Your task to perform on an android device: open chrome and create a bookmark for the current page Image 0: 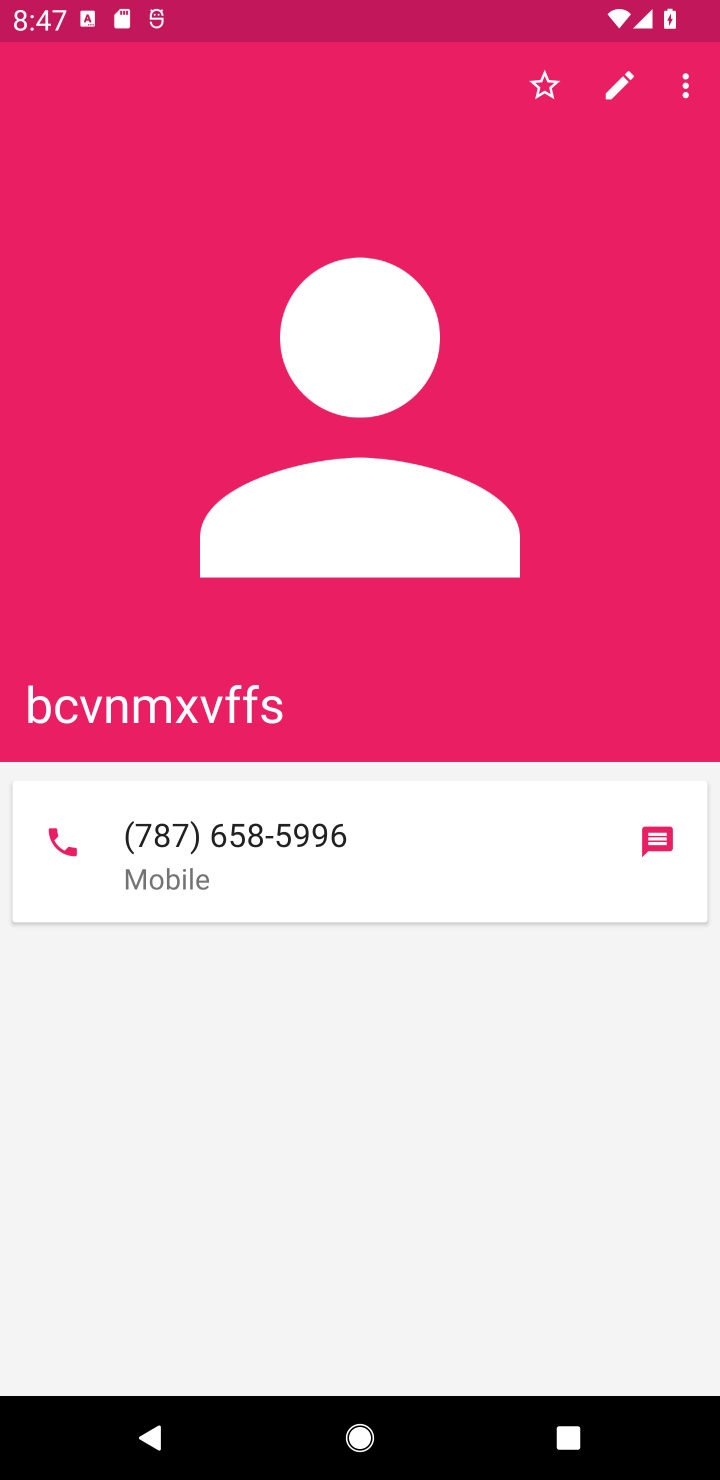
Step 0: press home button
Your task to perform on an android device: open chrome and create a bookmark for the current page Image 1: 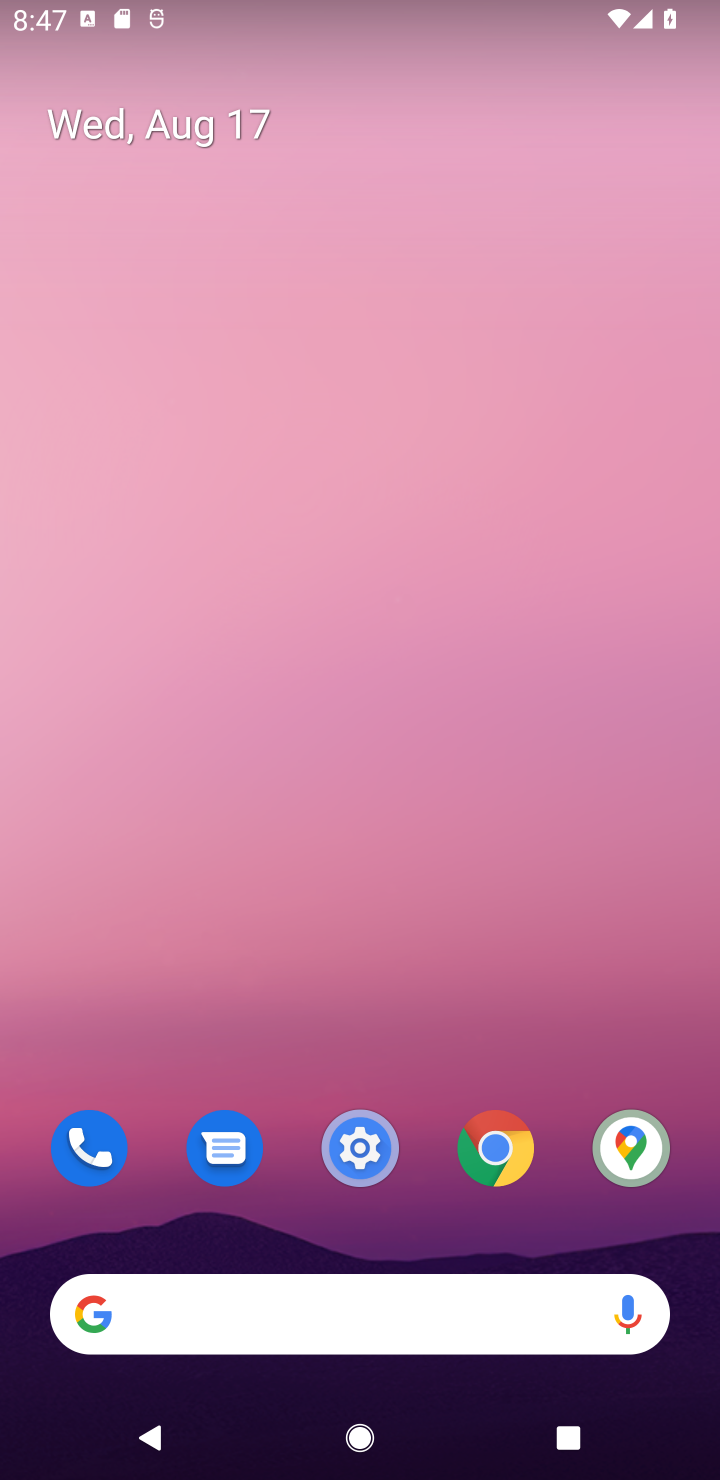
Step 1: click (500, 1151)
Your task to perform on an android device: open chrome and create a bookmark for the current page Image 2: 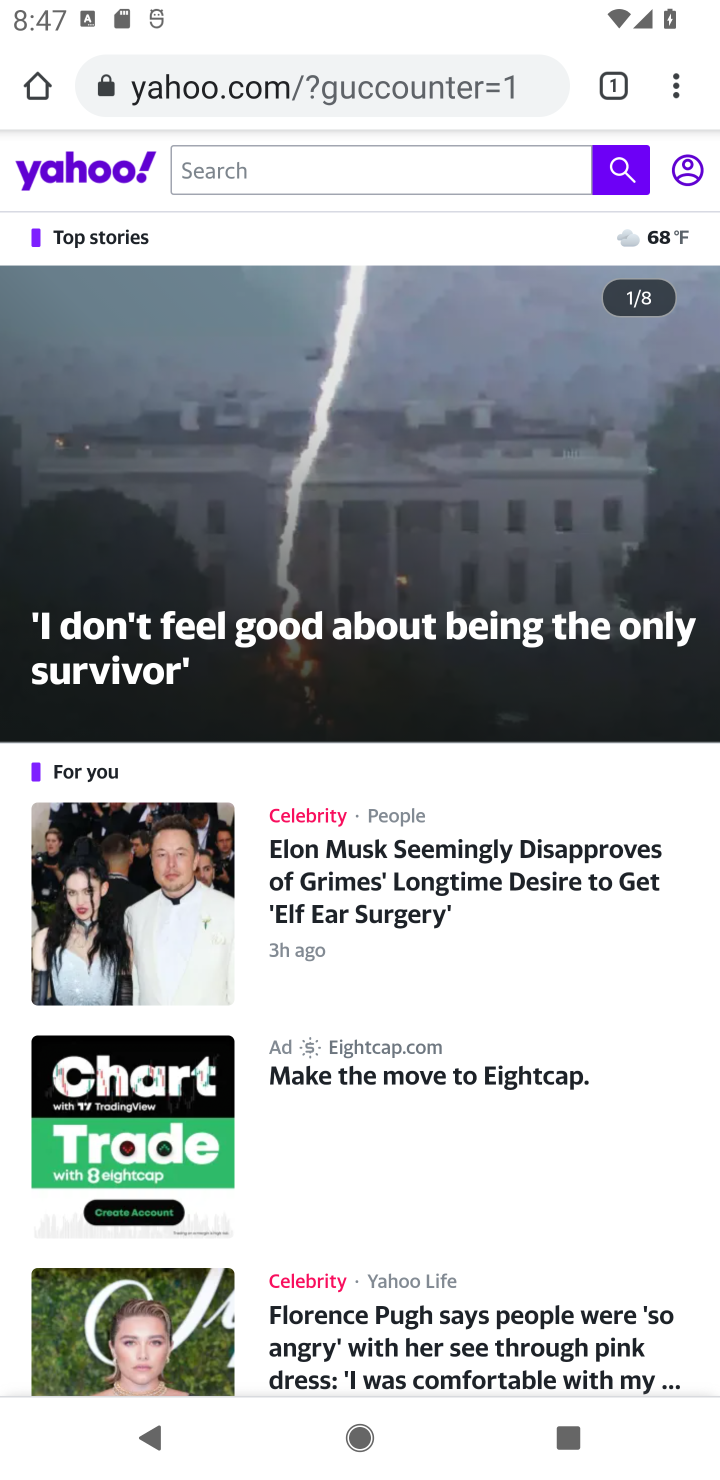
Step 2: click (667, 93)
Your task to perform on an android device: open chrome and create a bookmark for the current page Image 3: 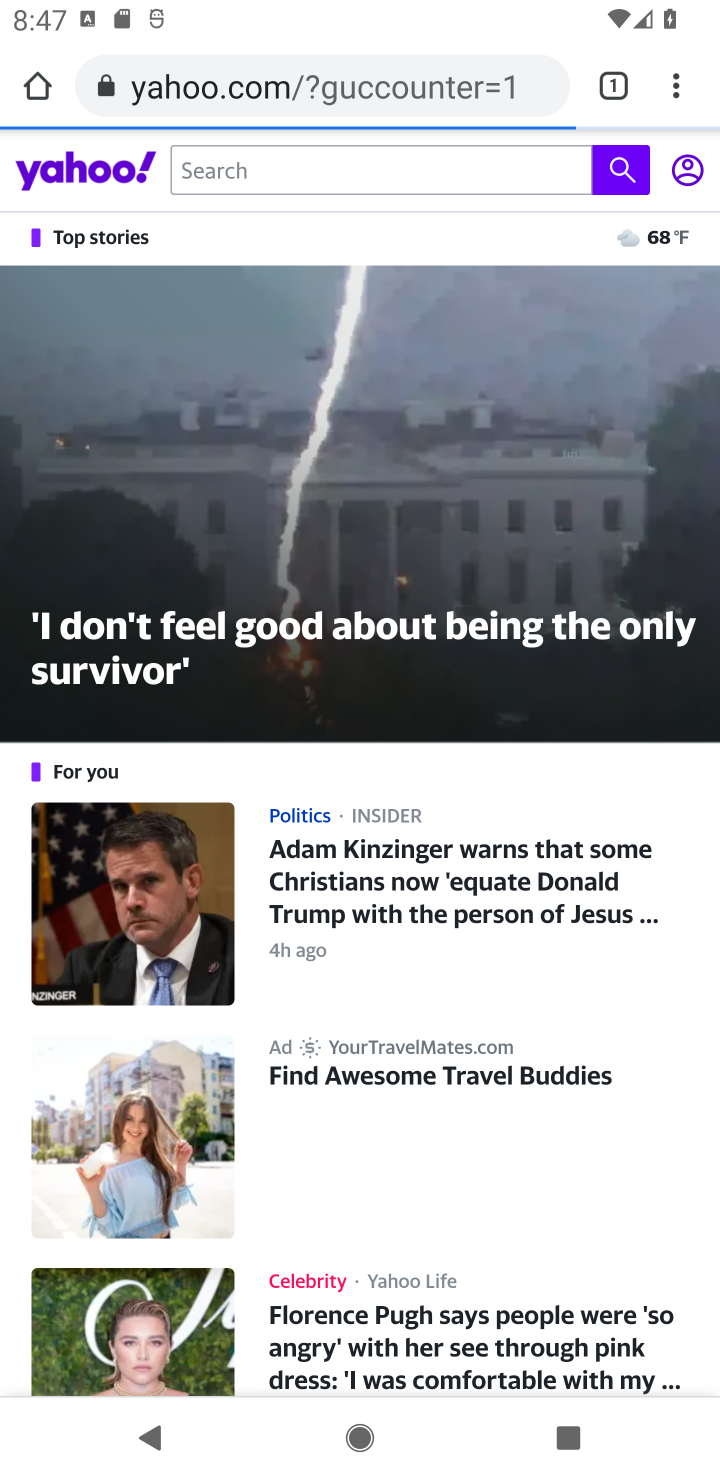
Step 3: click (666, 102)
Your task to perform on an android device: open chrome and create a bookmark for the current page Image 4: 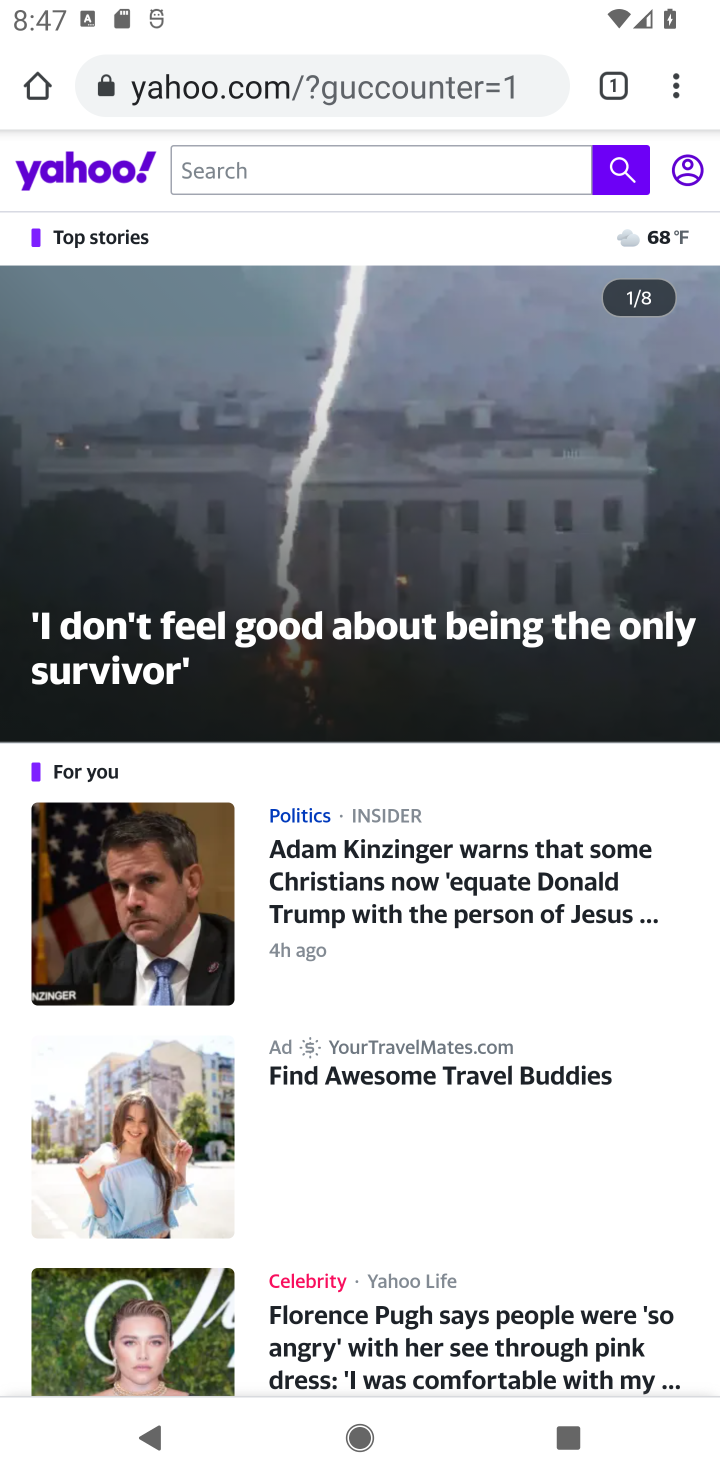
Step 4: click (666, 102)
Your task to perform on an android device: open chrome and create a bookmark for the current page Image 5: 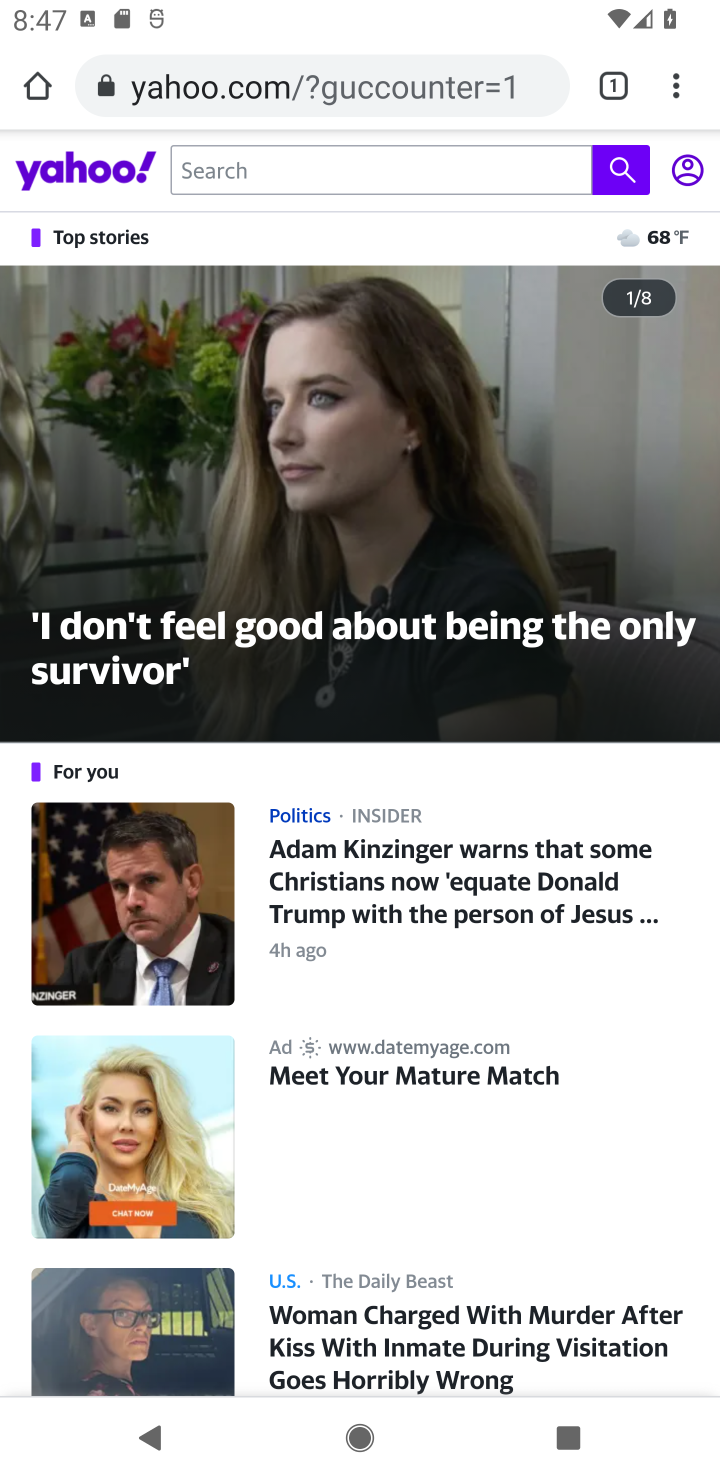
Step 5: click (662, 94)
Your task to perform on an android device: open chrome and create a bookmark for the current page Image 6: 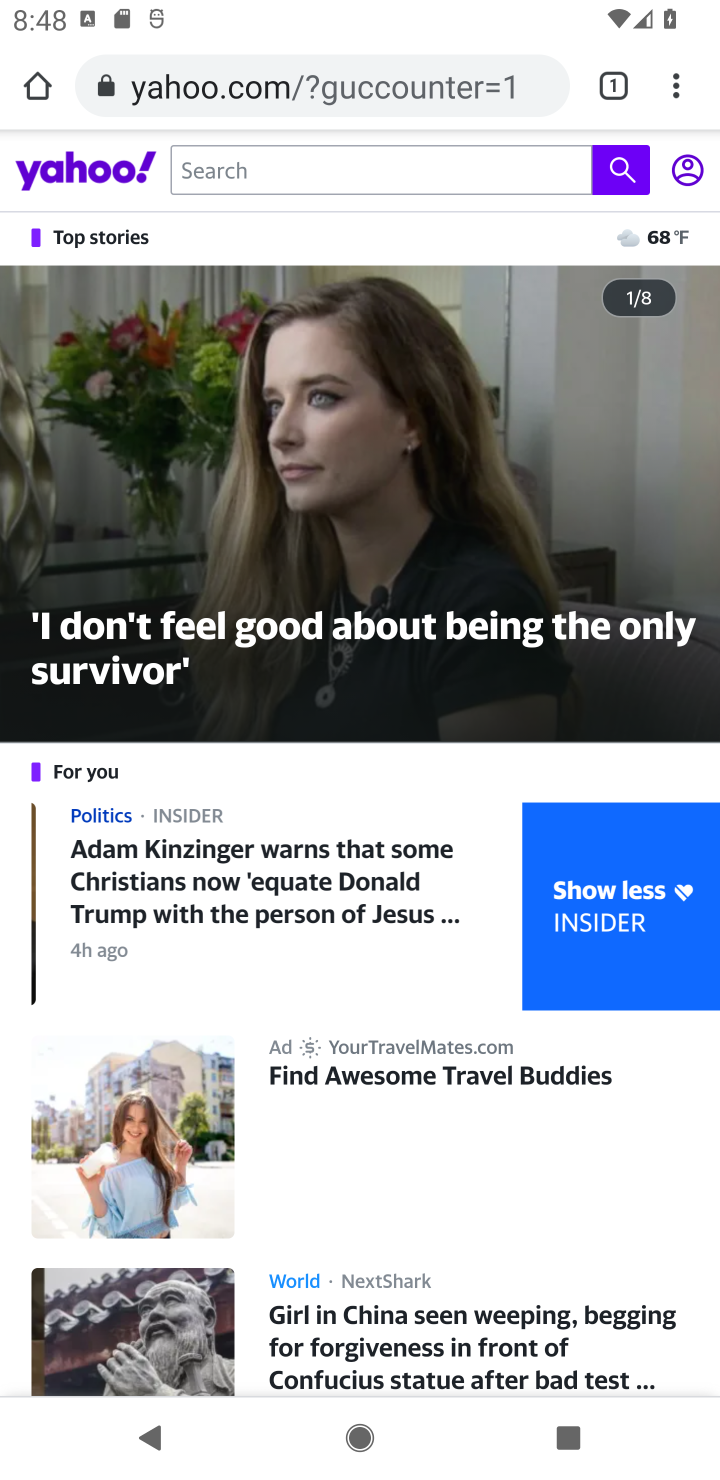
Step 6: click (683, 99)
Your task to perform on an android device: open chrome and create a bookmark for the current page Image 7: 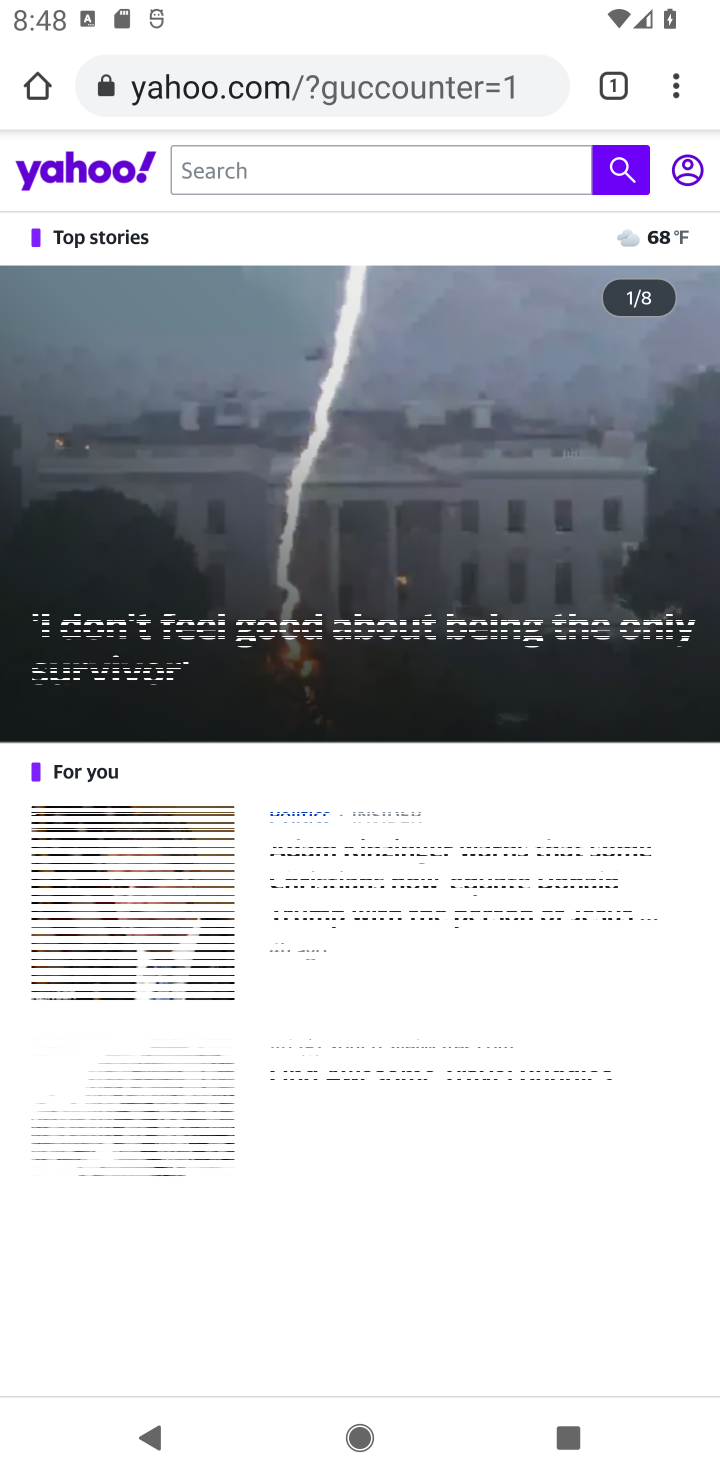
Step 7: click (665, 101)
Your task to perform on an android device: open chrome and create a bookmark for the current page Image 8: 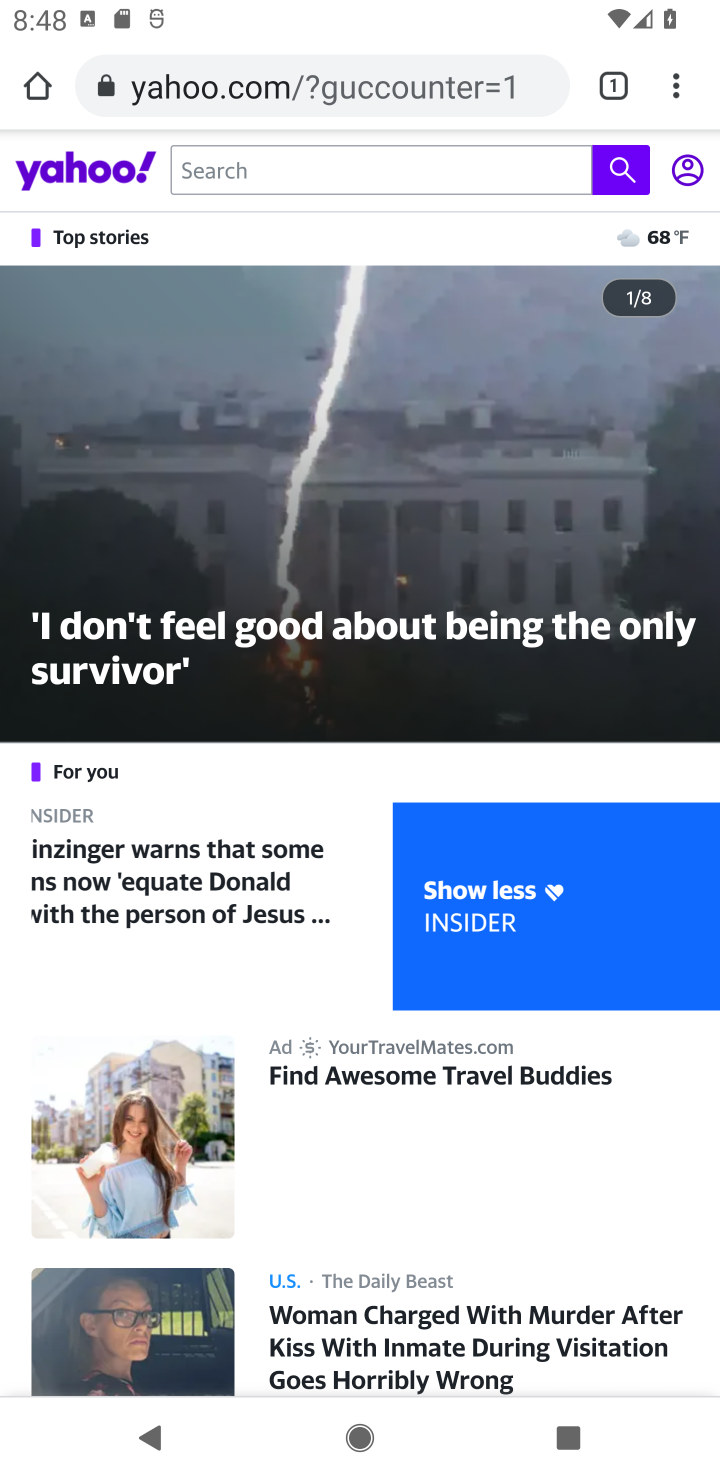
Step 8: task complete